Your task to perform on an android device: Go to Yahoo.com Image 0: 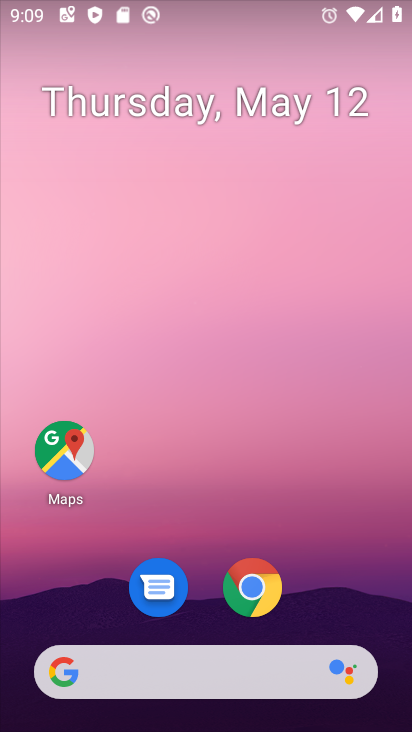
Step 0: drag from (347, 570) to (368, 219)
Your task to perform on an android device: Go to Yahoo.com Image 1: 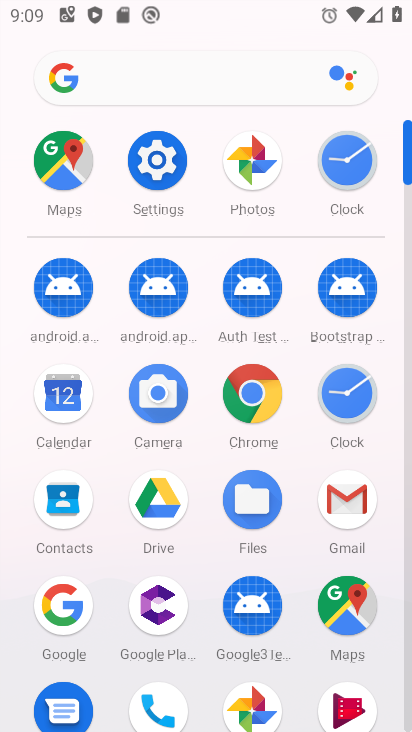
Step 1: click (243, 384)
Your task to perform on an android device: Go to Yahoo.com Image 2: 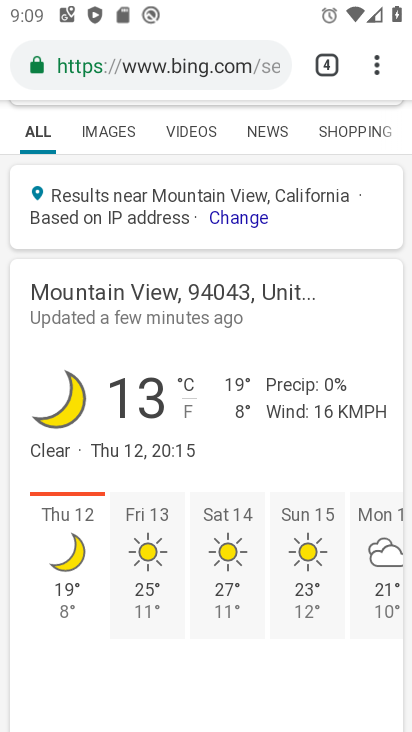
Step 2: click (395, 57)
Your task to perform on an android device: Go to Yahoo.com Image 3: 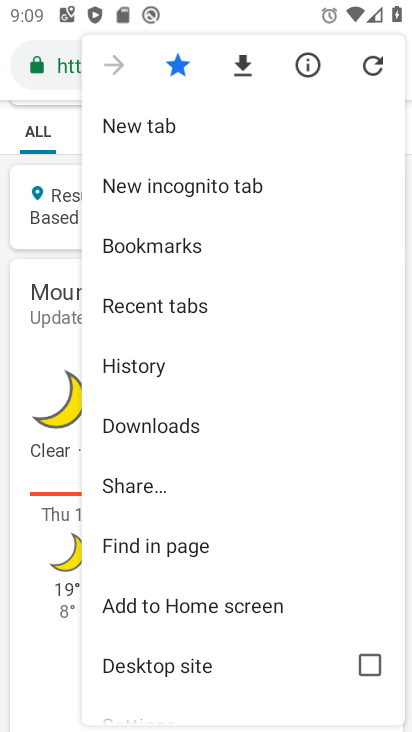
Step 3: click (177, 130)
Your task to perform on an android device: Go to Yahoo.com Image 4: 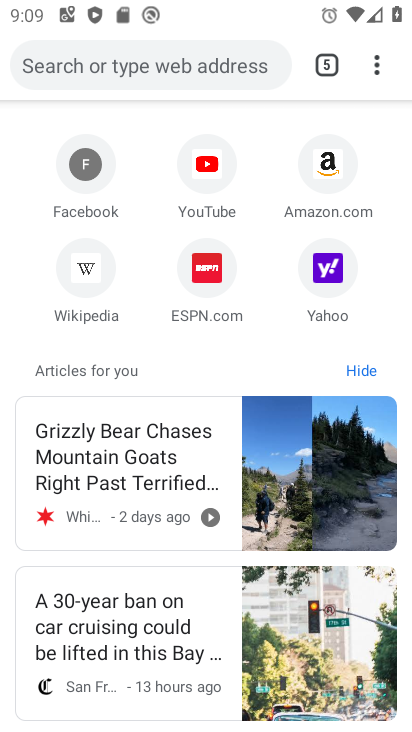
Step 4: click (313, 255)
Your task to perform on an android device: Go to Yahoo.com Image 5: 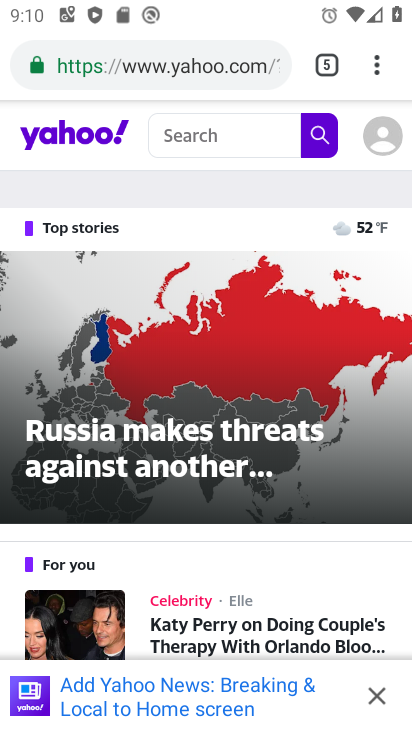
Step 5: task complete